Your task to perform on an android device: Search for "bose soundsport free" on amazon, select the first entry, add it to the cart, then select checkout. Image 0: 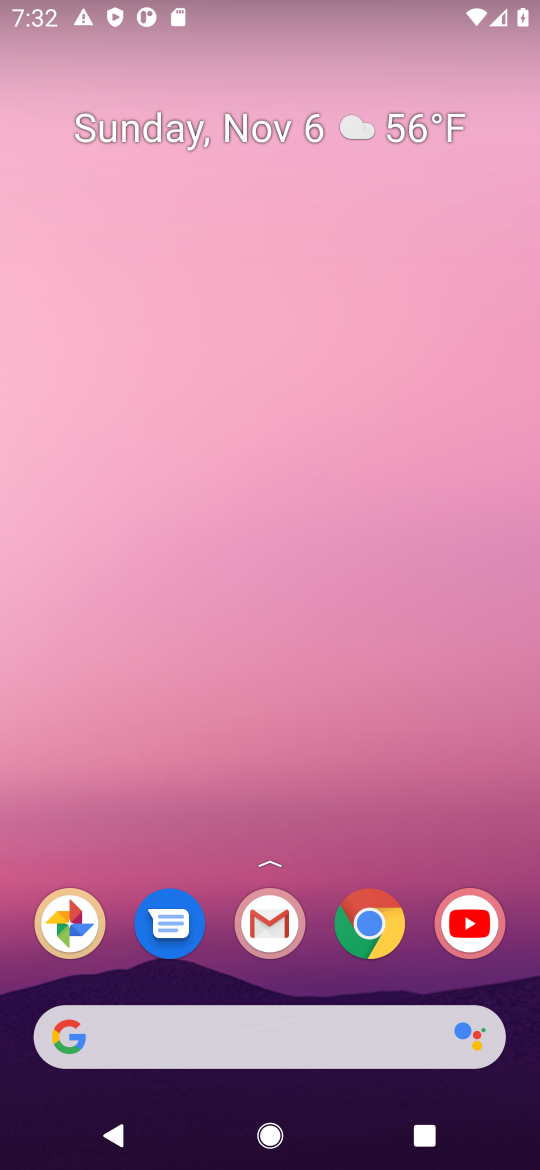
Step 0: click (369, 930)
Your task to perform on an android device: Search for "bose soundsport free" on amazon, select the first entry, add it to the cart, then select checkout. Image 1: 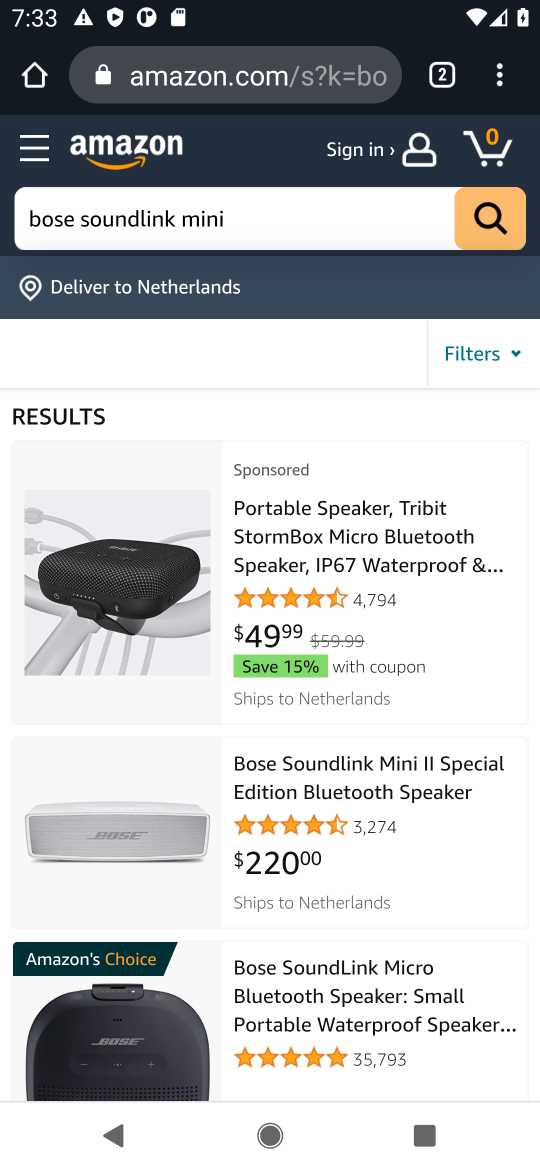
Step 1: click (227, 221)
Your task to perform on an android device: Search for "bose soundsport free" on amazon, select the first entry, add it to the cart, then select checkout. Image 2: 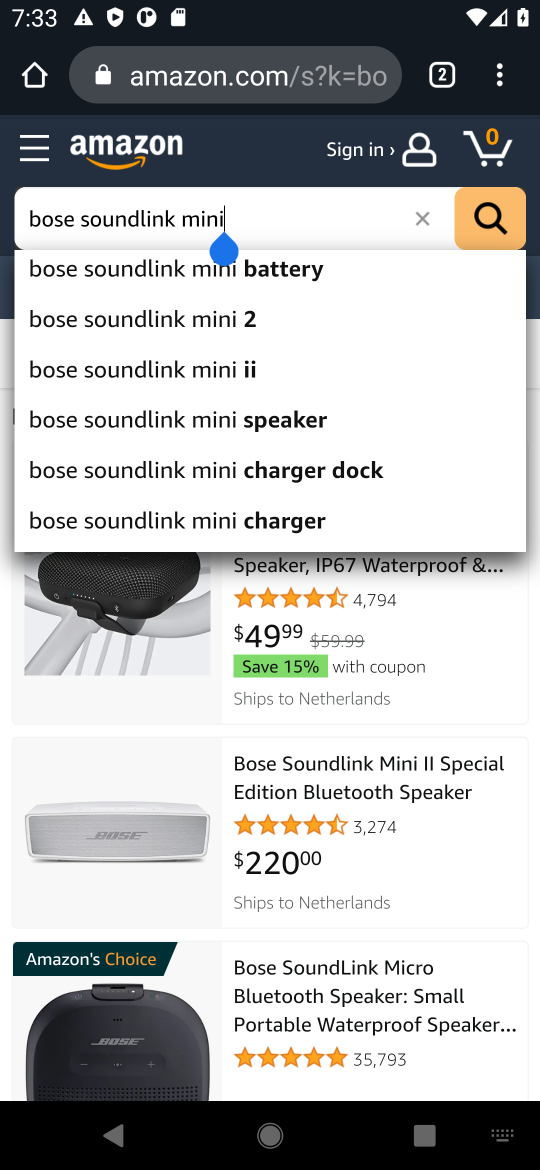
Step 2: click (423, 219)
Your task to perform on an android device: Search for "bose soundsport free" on amazon, select the first entry, add it to the cart, then select checkout. Image 3: 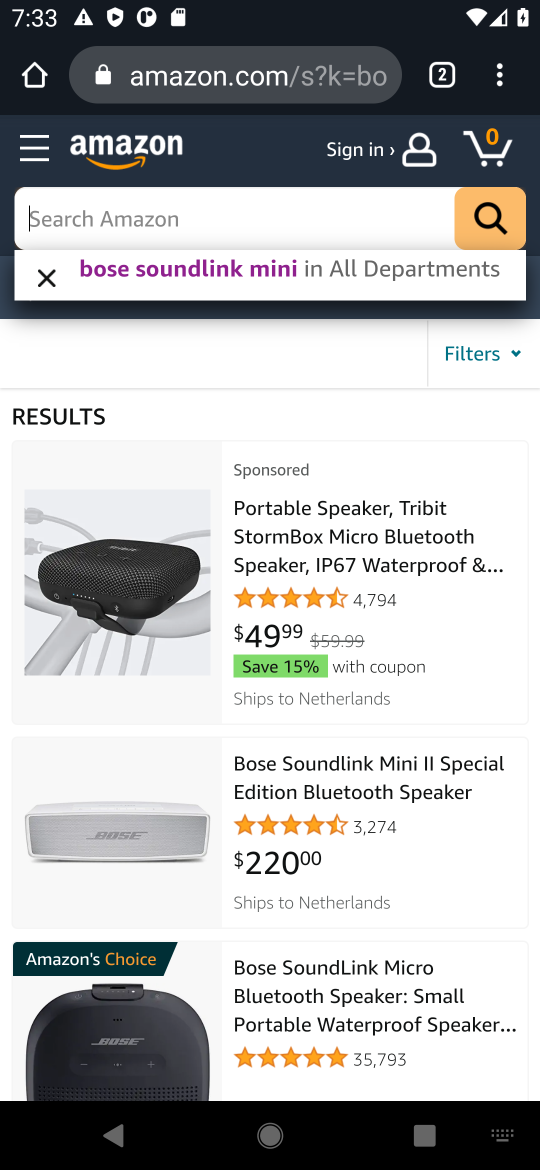
Step 3: type "bose soundsport free"
Your task to perform on an android device: Search for "bose soundsport free" on amazon, select the first entry, add it to the cart, then select checkout. Image 4: 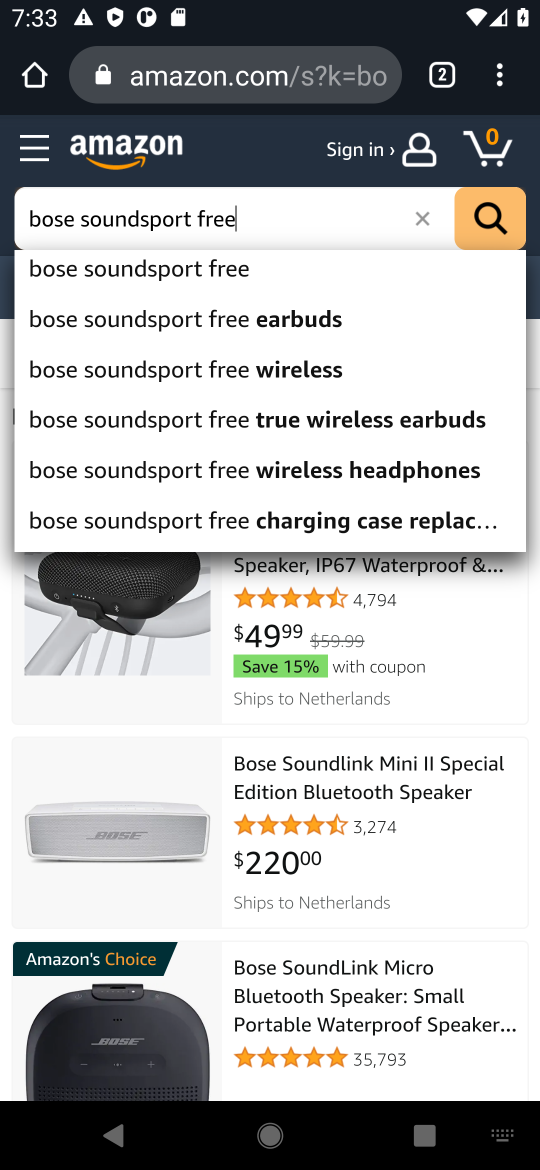
Step 4: click (161, 280)
Your task to perform on an android device: Search for "bose soundsport free" on amazon, select the first entry, add it to the cart, then select checkout. Image 5: 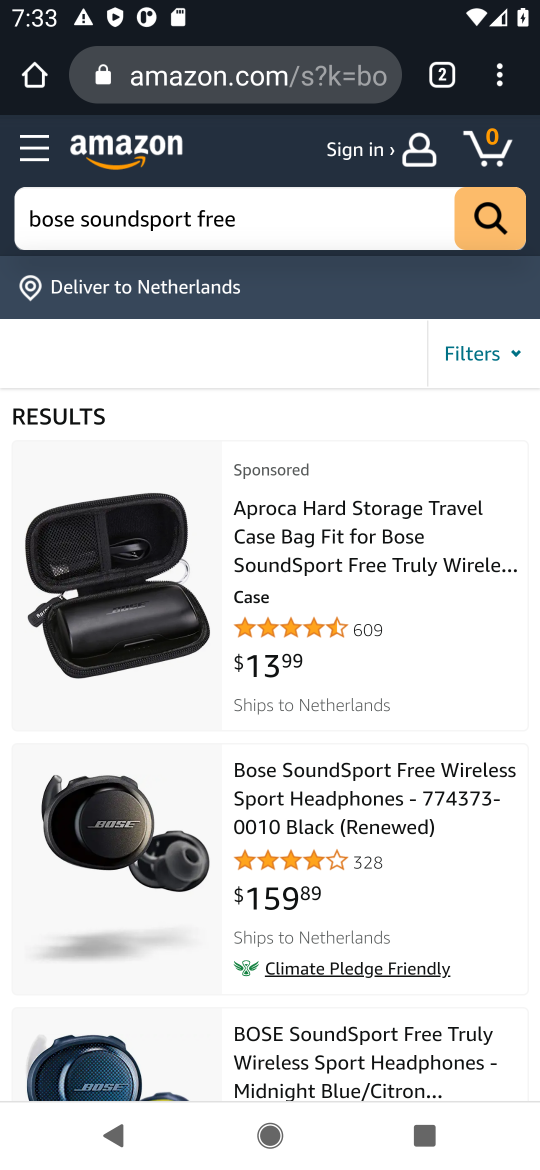
Step 5: click (149, 600)
Your task to perform on an android device: Search for "bose soundsport free" on amazon, select the first entry, add it to the cart, then select checkout. Image 6: 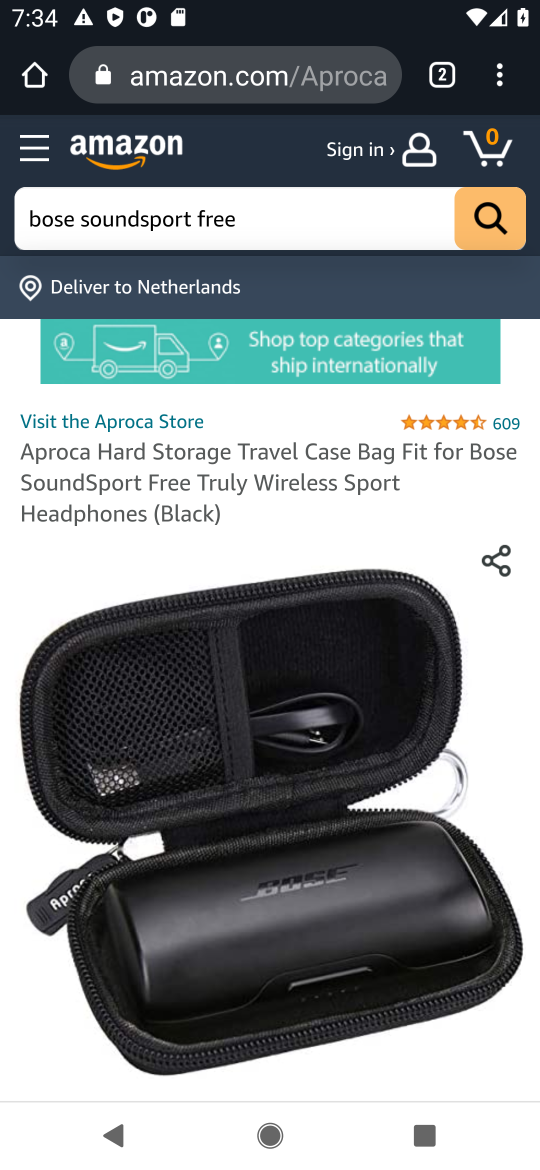
Step 6: drag from (231, 734) to (231, 407)
Your task to perform on an android device: Search for "bose soundsport free" on amazon, select the first entry, add it to the cart, then select checkout. Image 7: 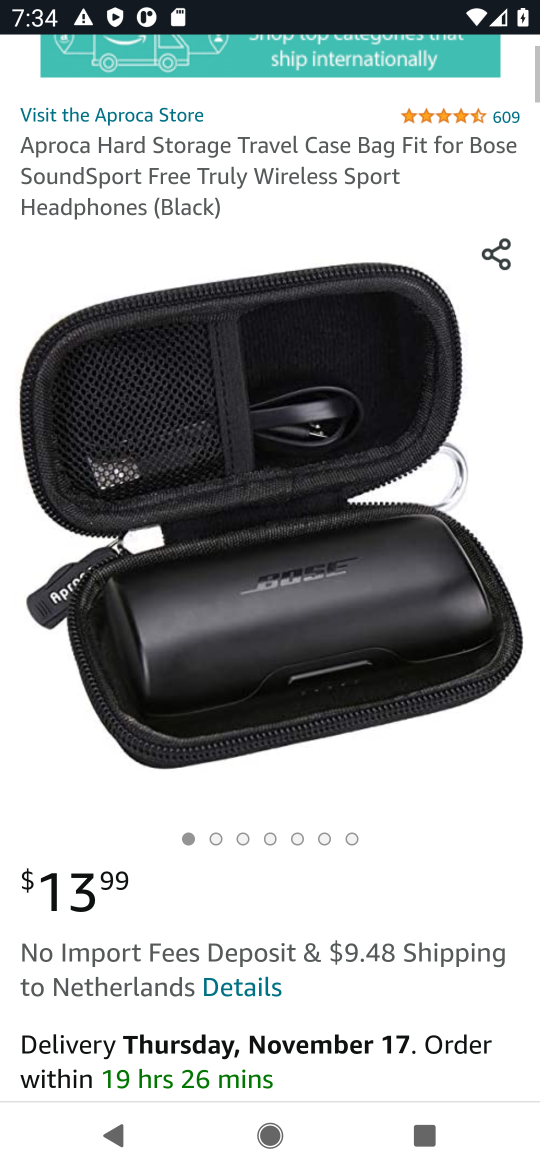
Step 7: drag from (209, 907) to (241, 386)
Your task to perform on an android device: Search for "bose soundsport free" on amazon, select the first entry, add it to the cart, then select checkout. Image 8: 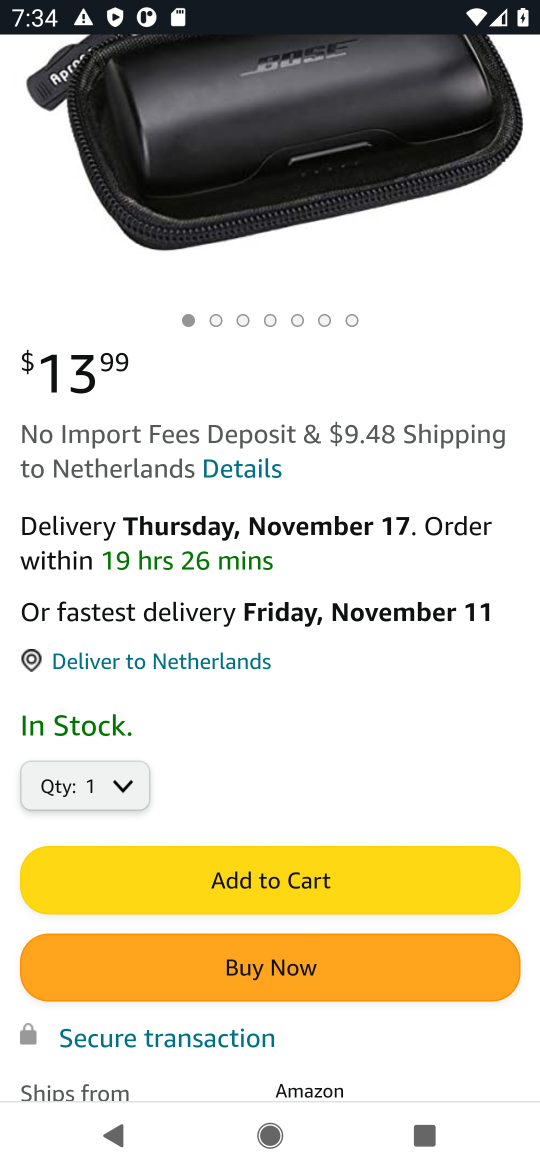
Step 8: click (238, 879)
Your task to perform on an android device: Search for "bose soundsport free" on amazon, select the first entry, add it to the cart, then select checkout. Image 9: 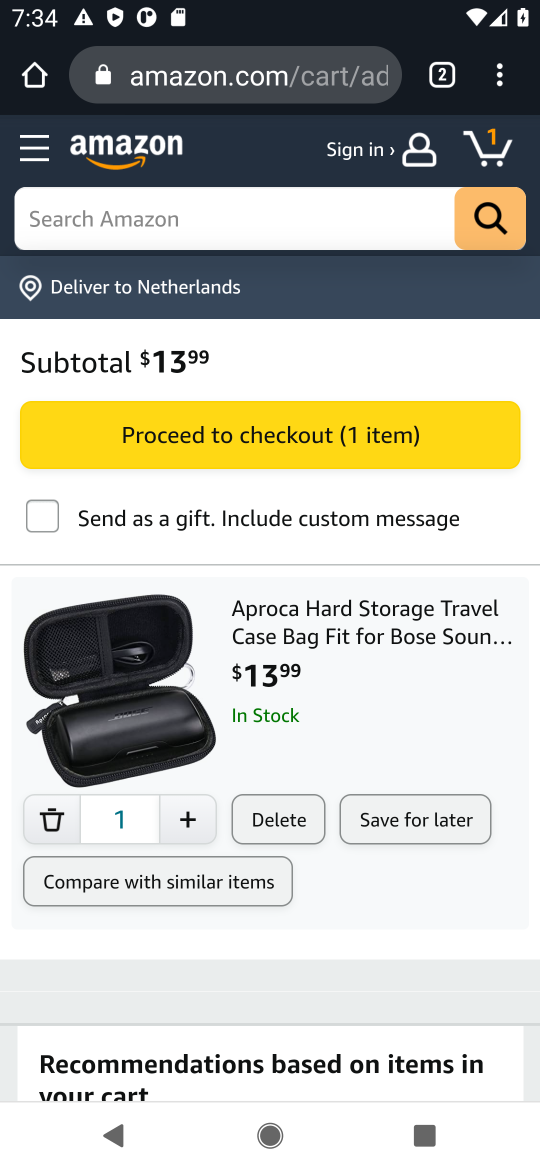
Step 9: click (217, 442)
Your task to perform on an android device: Search for "bose soundsport free" on amazon, select the first entry, add it to the cart, then select checkout. Image 10: 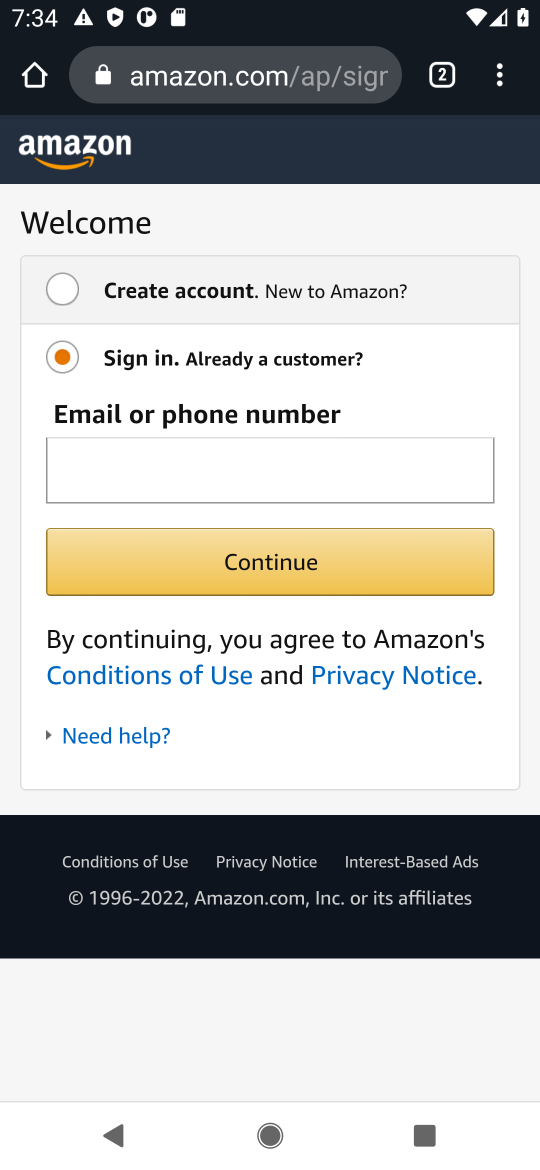
Step 10: task complete